Your task to perform on an android device: open sync settings in chrome Image 0: 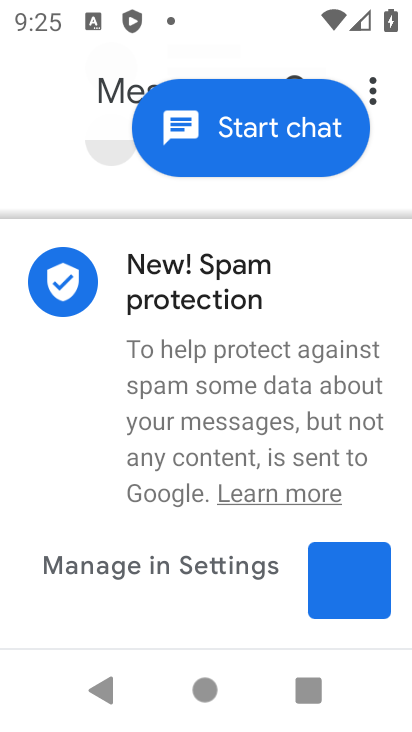
Step 0: press home button
Your task to perform on an android device: open sync settings in chrome Image 1: 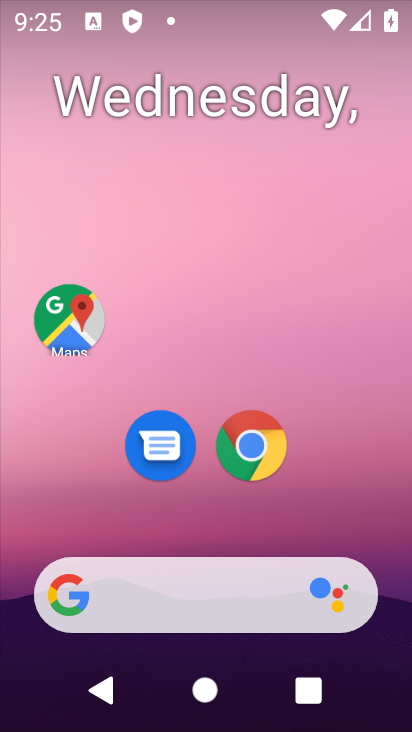
Step 1: drag from (359, 699) to (398, 141)
Your task to perform on an android device: open sync settings in chrome Image 2: 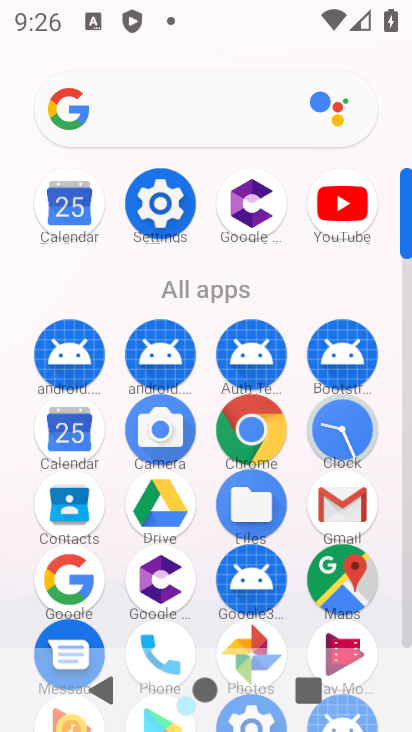
Step 2: click (270, 416)
Your task to perform on an android device: open sync settings in chrome Image 3: 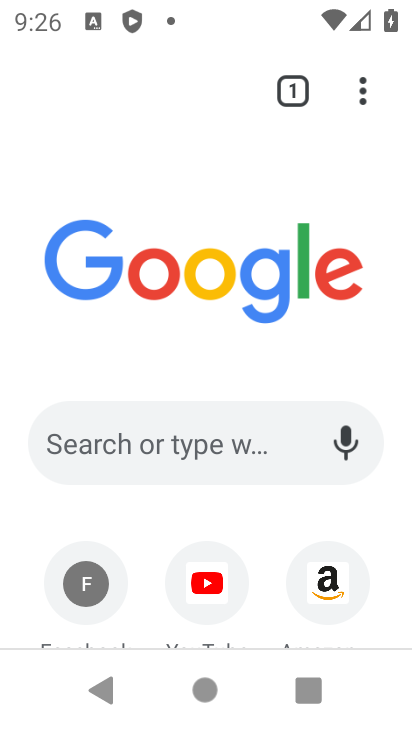
Step 3: drag from (359, 105) to (133, 463)
Your task to perform on an android device: open sync settings in chrome Image 4: 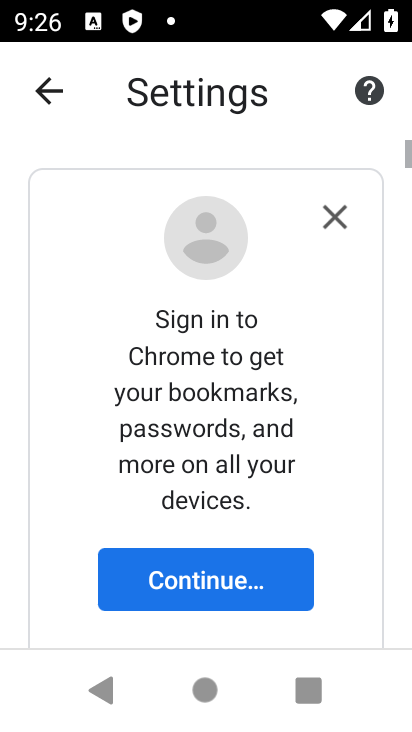
Step 4: drag from (228, 529) to (237, 216)
Your task to perform on an android device: open sync settings in chrome Image 5: 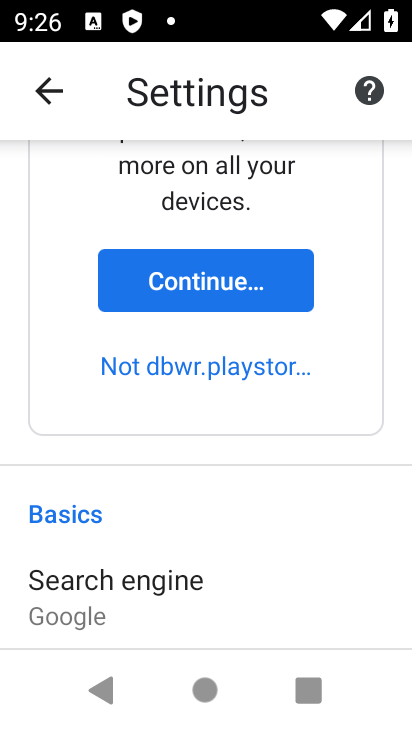
Step 5: drag from (174, 545) to (194, 295)
Your task to perform on an android device: open sync settings in chrome Image 6: 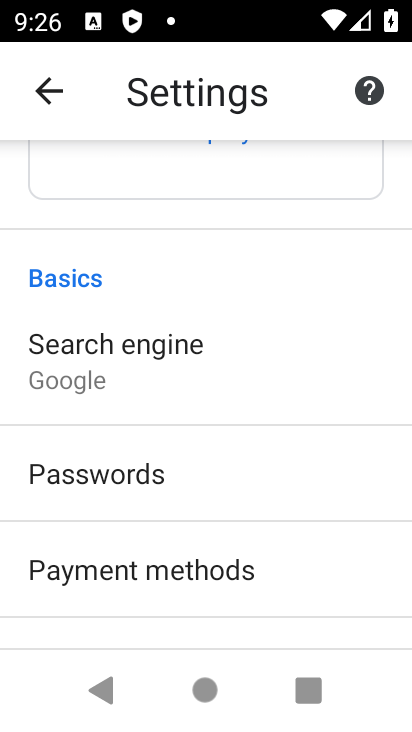
Step 6: drag from (164, 547) to (182, 249)
Your task to perform on an android device: open sync settings in chrome Image 7: 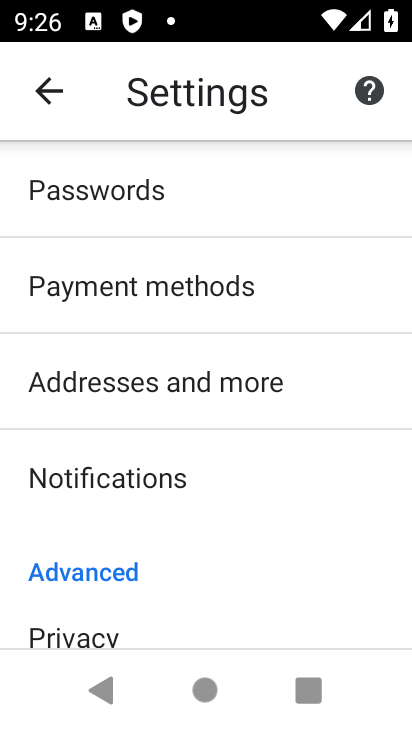
Step 7: drag from (167, 577) to (235, 150)
Your task to perform on an android device: open sync settings in chrome Image 8: 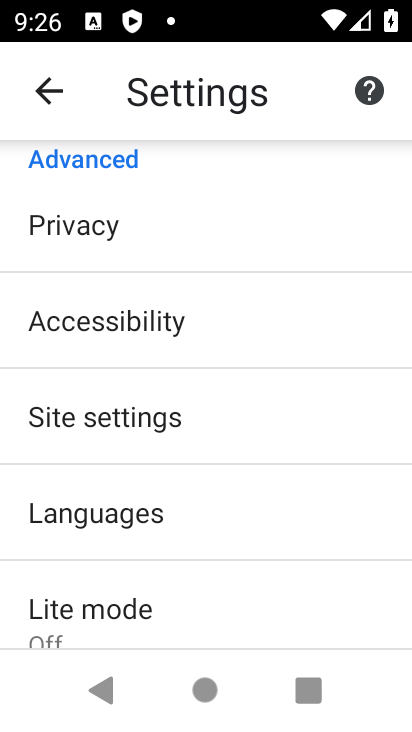
Step 8: click (117, 429)
Your task to perform on an android device: open sync settings in chrome Image 9: 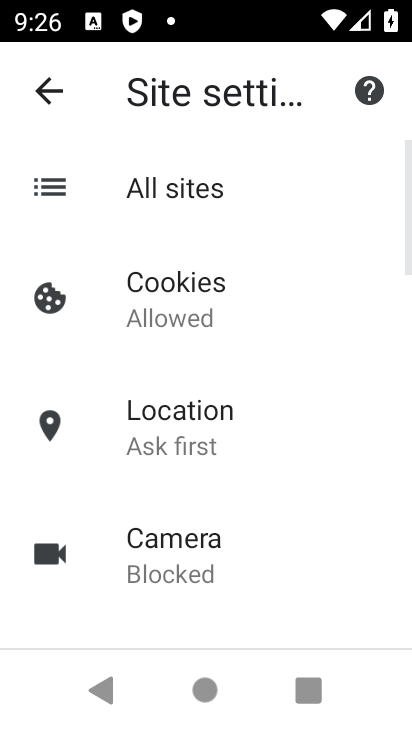
Step 9: drag from (192, 415) to (184, 156)
Your task to perform on an android device: open sync settings in chrome Image 10: 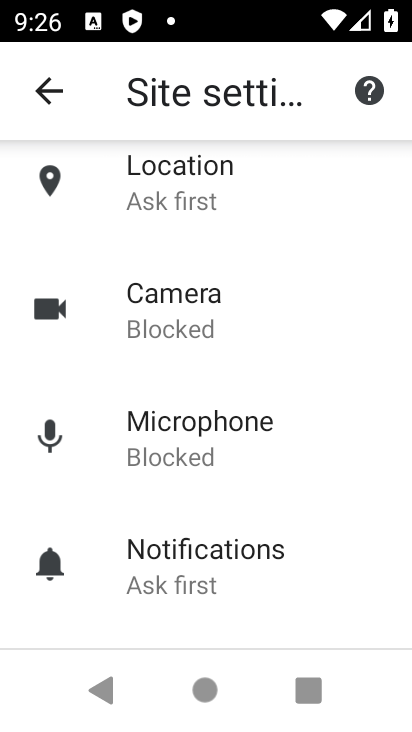
Step 10: drag from (246, 580) to (291, 211)
Your task to perform on an android device: open sync settings in chrome Image 11: 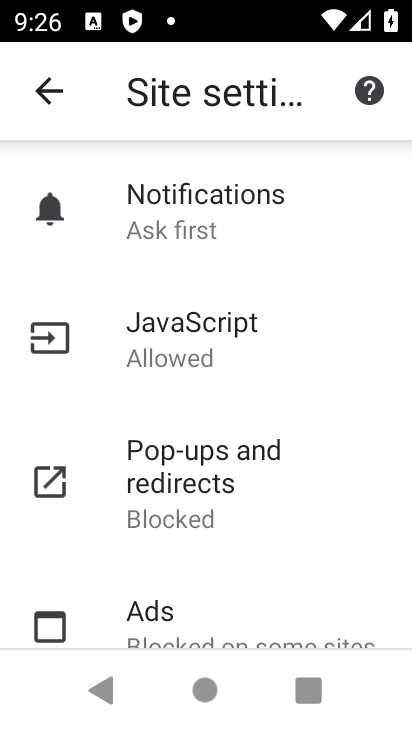
Step 11: drag from (302, 566) to (331, 252)
Your task to perform on an android device: open sync settings in chrome Image 12: 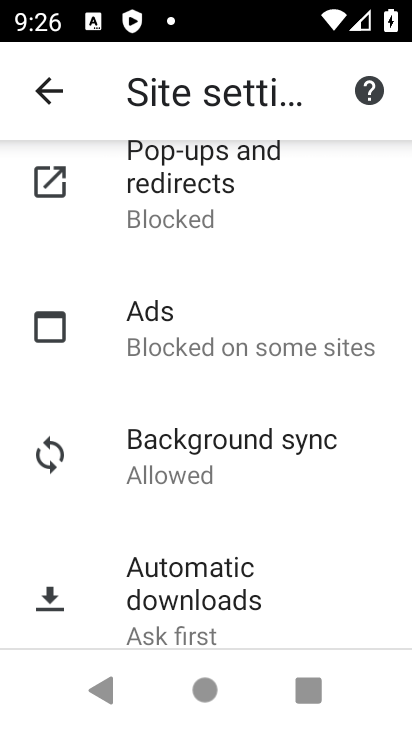
Step 12: click (244, 441)
Your task to perform on an android device: open sync settings in chrome Image 13: 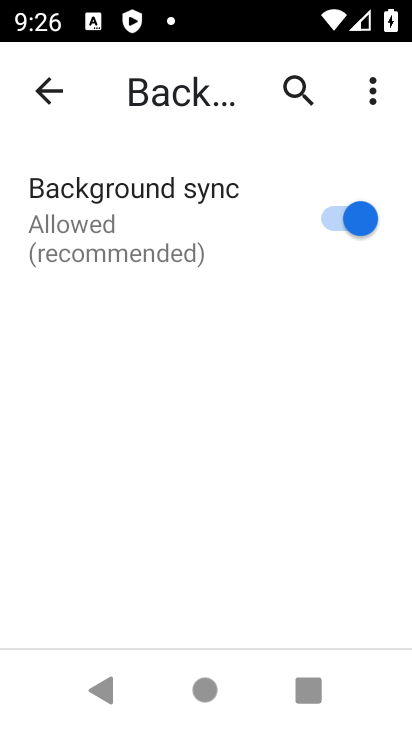
Step 13: task complete